Your task to perform on an android device: change timer sound Image 0: 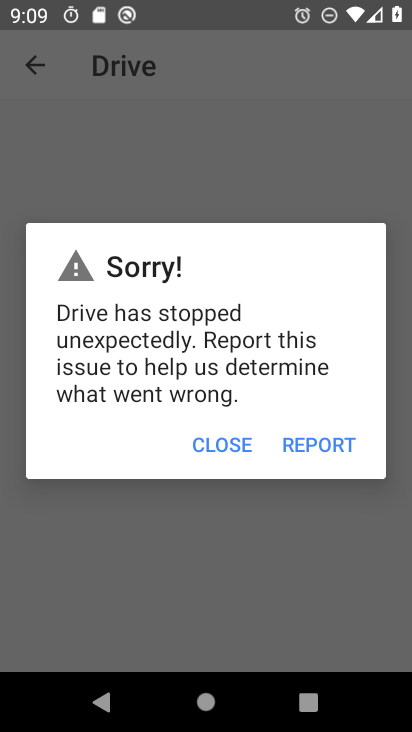
Step 0: press back button
Your task to perform on an android device: change timer sound Image 1: 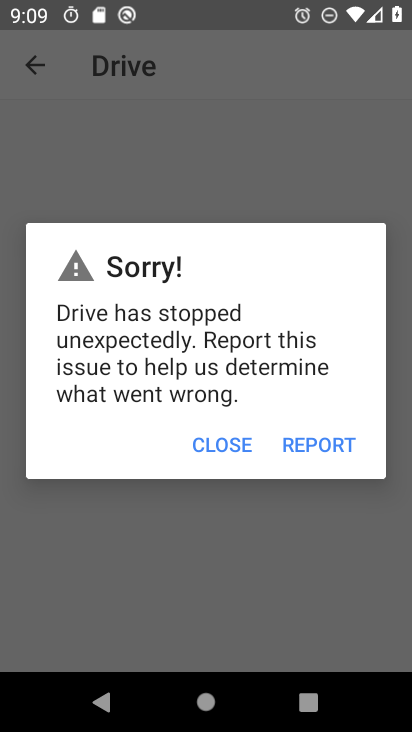
Step 1: press home button
Your task to perform on an android device: change timer sound Image 2: 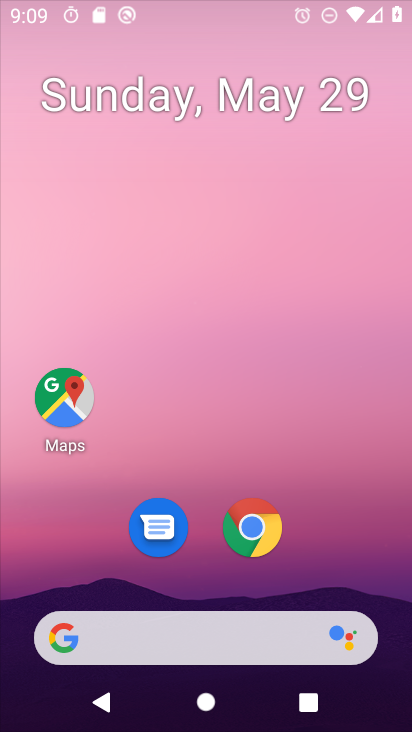
Step 2: drag from (380, 627) to (285, 76)
Your task to perform on an android device: change timer sound Image 3: 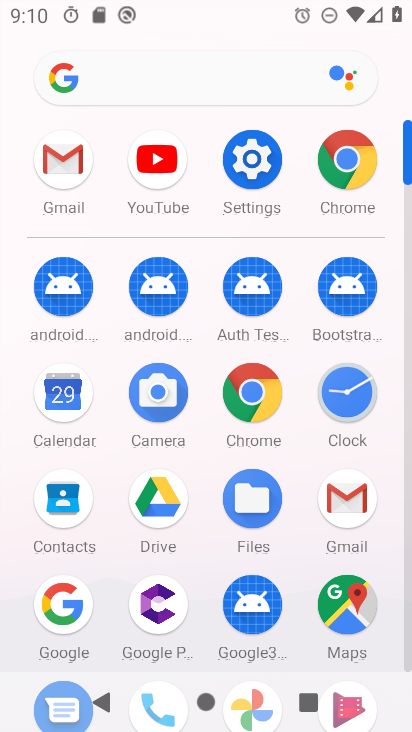
Step 3: click (334, 390)
Your task to perform on an android device: change timer sound Image 4: 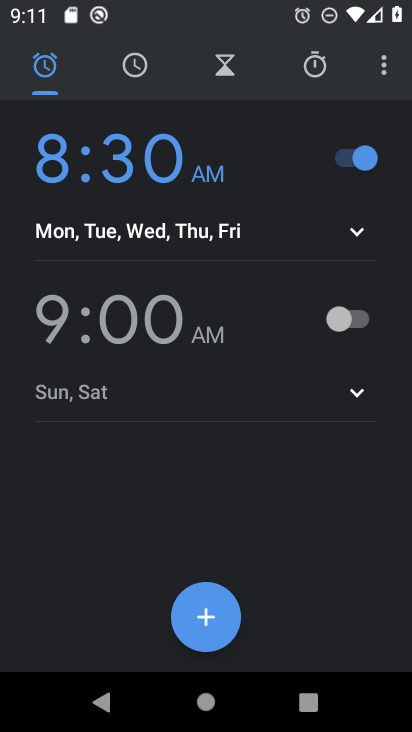
Step 4: click (393, 80)
Your task to perform on an android device: change timer sound Image 5: 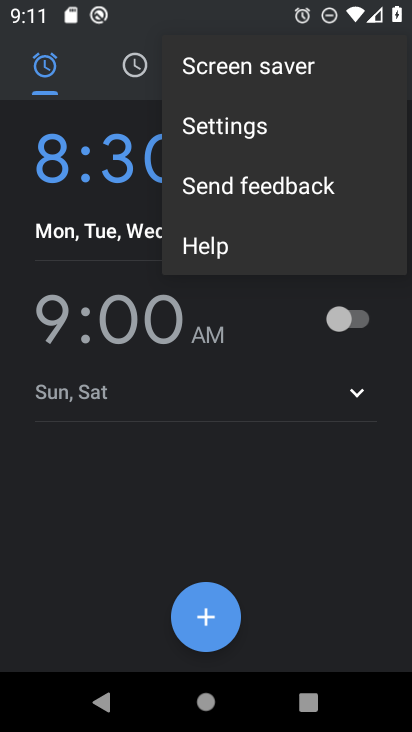
Step 5: click (271, 123)
Your task to perform on an android device: change timer sound Image 6: 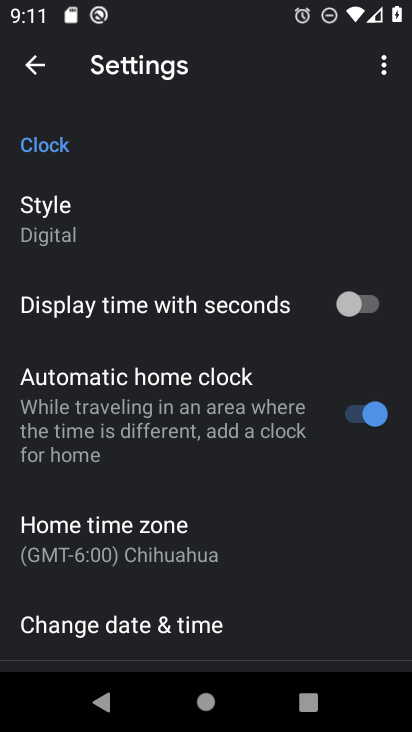
Step 6: drag from (162, 602) to (174, 55)
Your task to perform on an android device: change timer sound Image 7: 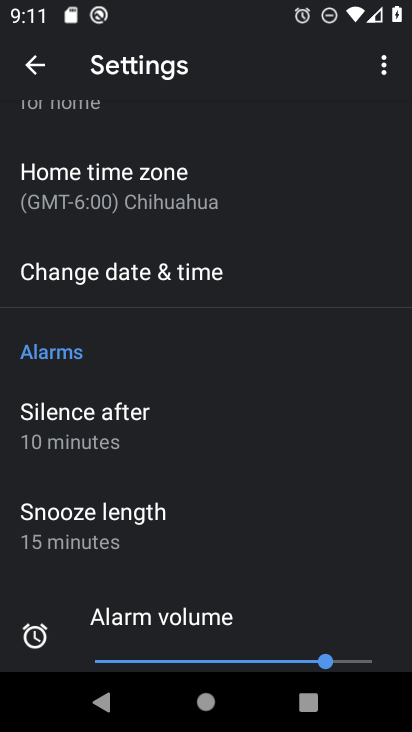
Step 7: drag from (169, 618) to (216, 103)
Your task to perform on an android device: change timer sound Image 8: 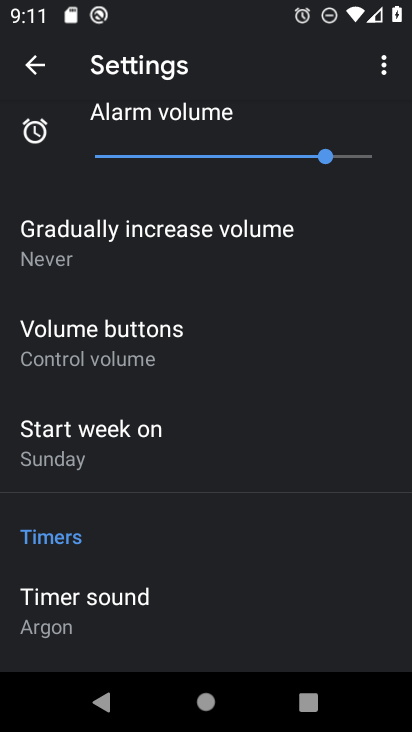
Step 8: click (150, 629)
Your task to perform on an android device: change timer sound Image 9: 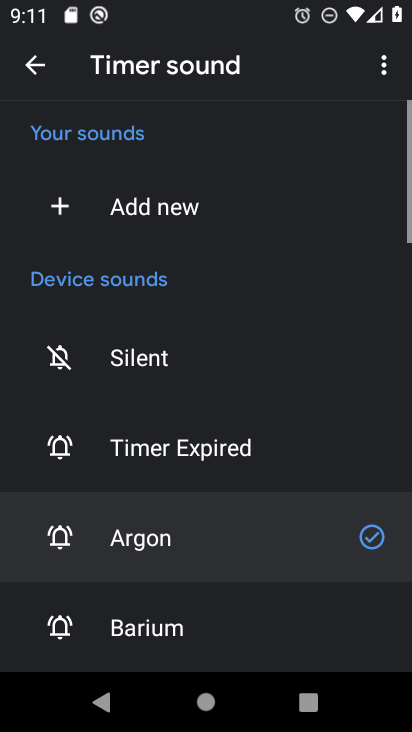
Step 9: drag from (159, 606) to (202, 291)
Your task to perform on an android device: change timer sound Image 10: 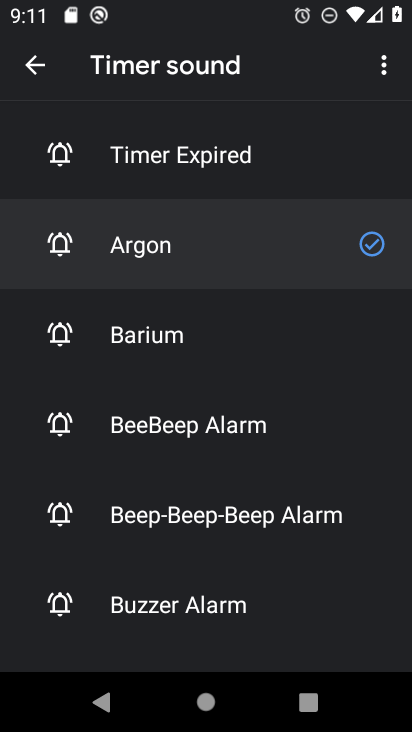
Step 10: click (175, 351)
Your task to perform on an android device: change timer sound Image 11: 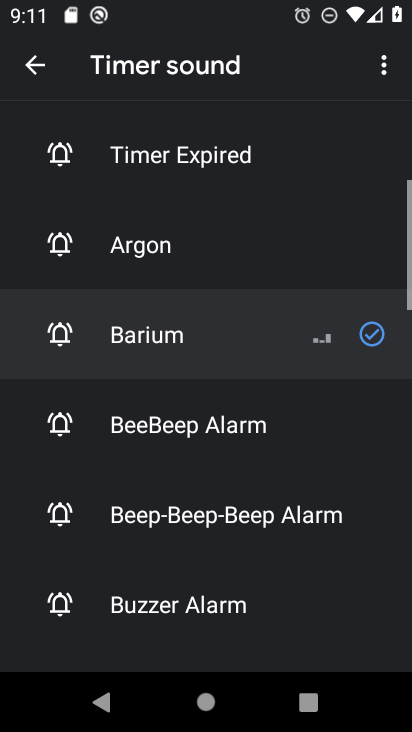
Step 11: task complete